Your task to perform on an android device: install app "Google News" Image 0: 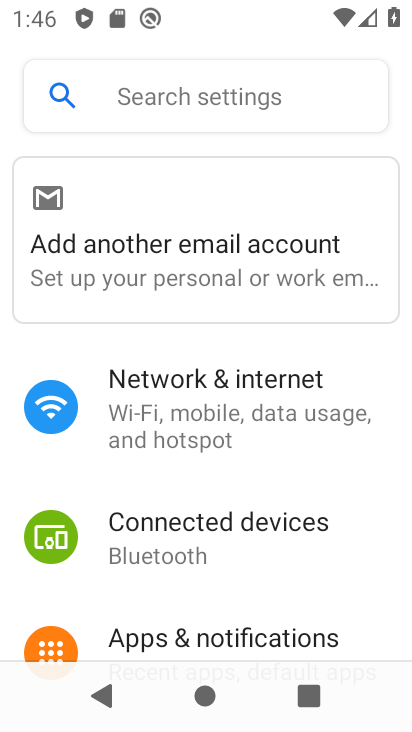
Step 0: press home button
Your task to perform on an android device: install app "Google News" Image 1: 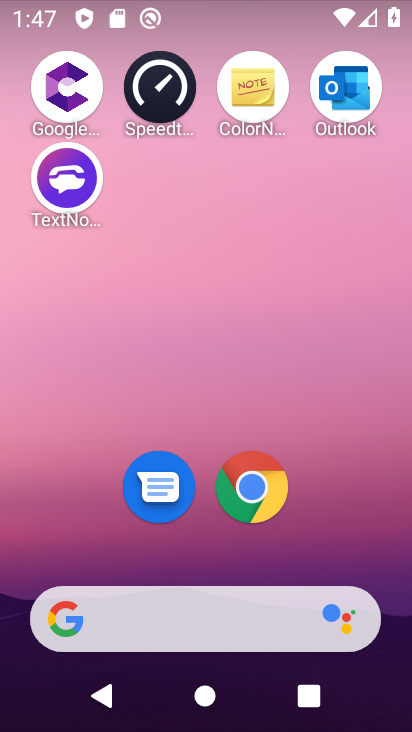
Step 1: drag from (208, 428) to (208, 179)
Your task to perform on an android device: install app "Google News" Image 2: 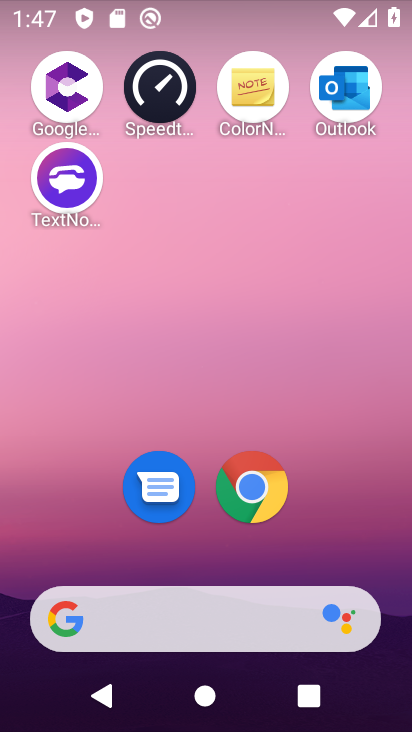
Step 2: drag from (198, 505) to (218, 68)
Your task to perform on an android device: install app "Google News" Image 3: 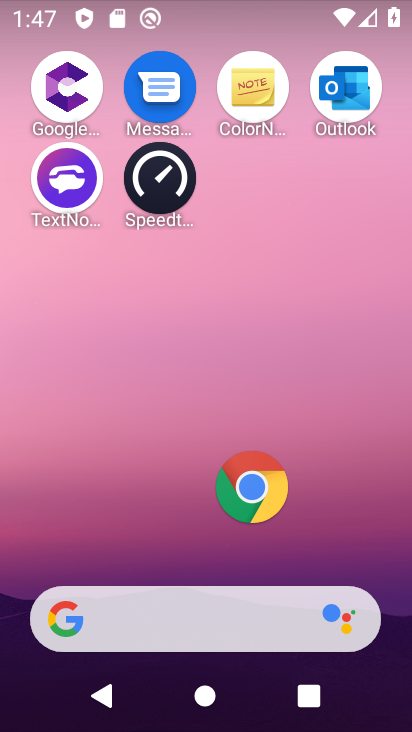
Step 3: drag from (121, 521) to (123, 73)
Your task to perform on an android device: install app "Google News" Image 4: 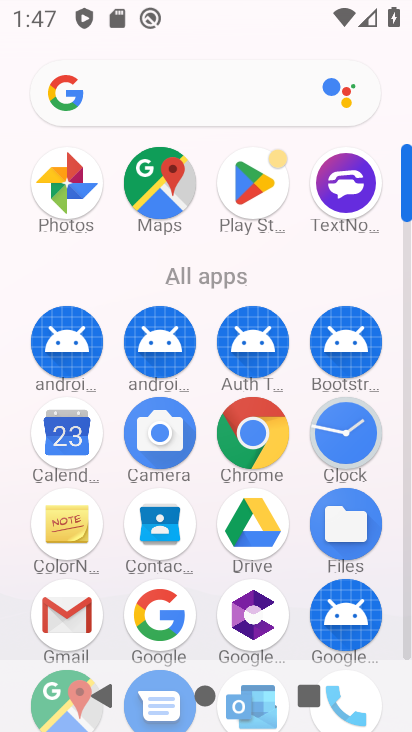
Step 4: click (245, 178)
Your task to perform on an android device: install app "Google News" Image 5: 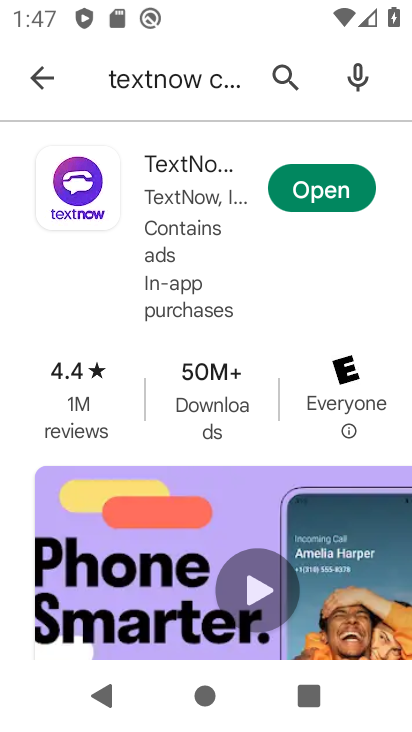
Step 5: click (47, 77)
Your task to perform on an android device: install app "Google News" Image 6: 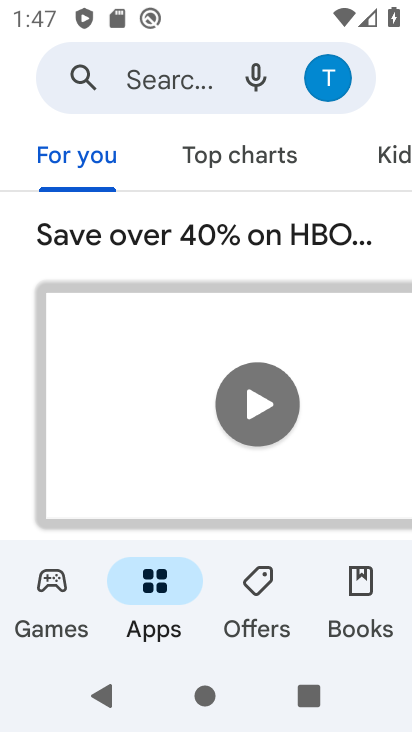
Step 6: click (153, 72)
Your task to perform on an android device: install app "Google News" Image 7: 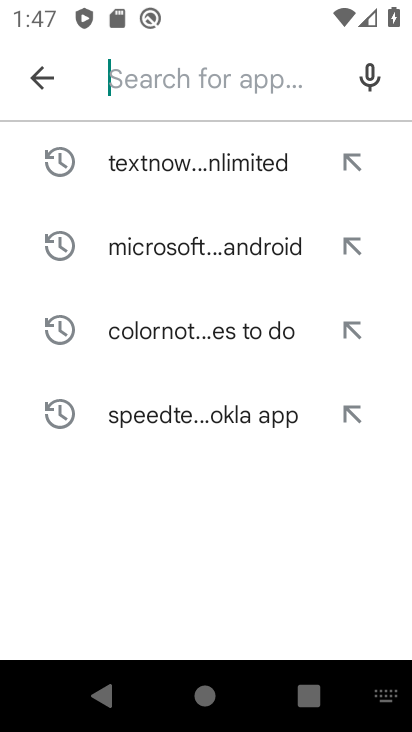
Step 7: click (205, 80)
Your task to perform on an android device: install app "Google News" Image 8: 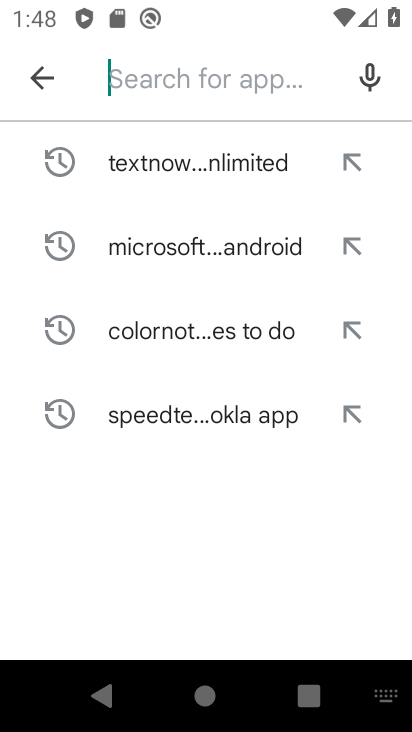
Step 8: type "Google News "
Your task to perform on an android device: install app "Google News" Image 9: 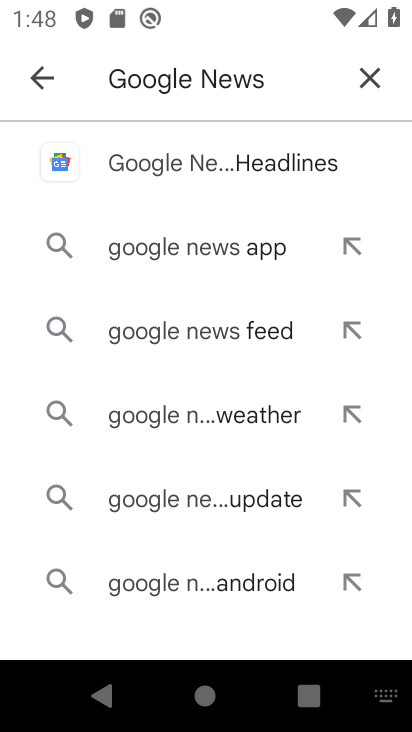
Step 9: click (196, 229)
Your task to perform on an android device: install app "Google News" Image 10: 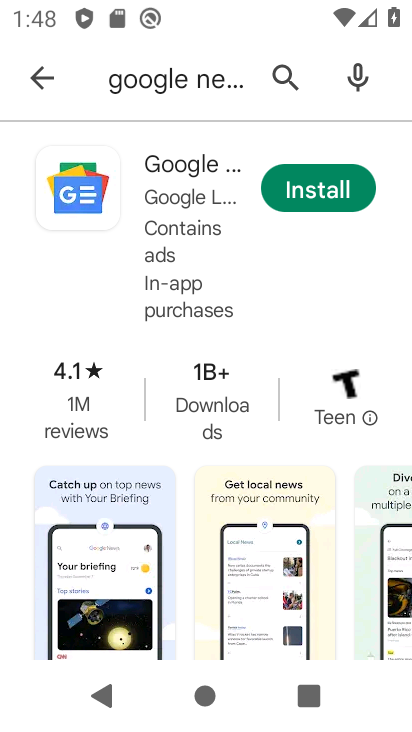
Step 10: click (335, 183)
Your task to perform on an android device: install app "Google News" Image 11: 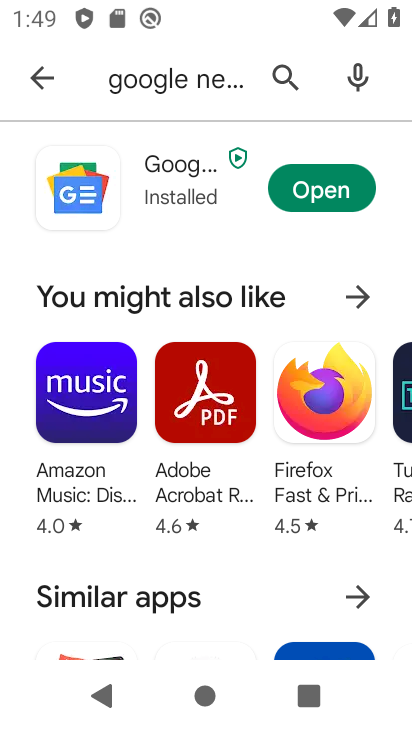
Step 11: click (330, 194)
Your task to perform on an android device: install app "Google News" Image 12: 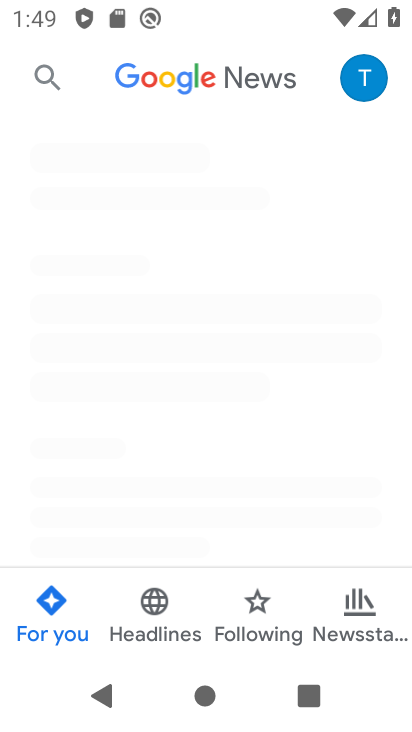
Step 12: task complete